Your task to perform on an android device: Is it going to rain this weekend? Image 0: 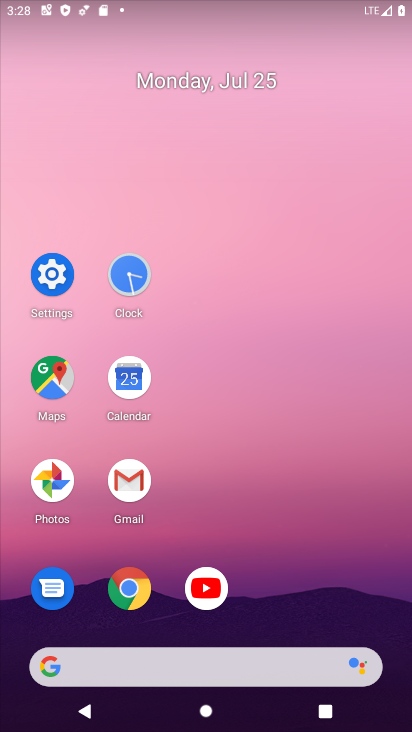
Step 0: click (150, 665)
Your task to perform on an android device: Is it going to rain this weekend? Image 1: 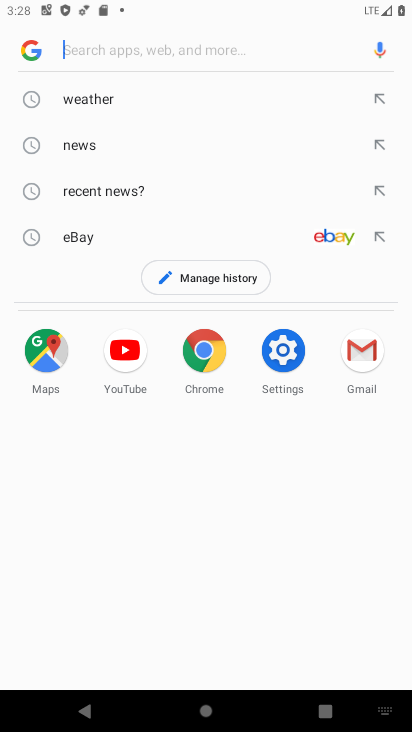
Step 1: click (82, 97)
Your task to perform on an android device: Is it going to rain this weekend? Image 2: 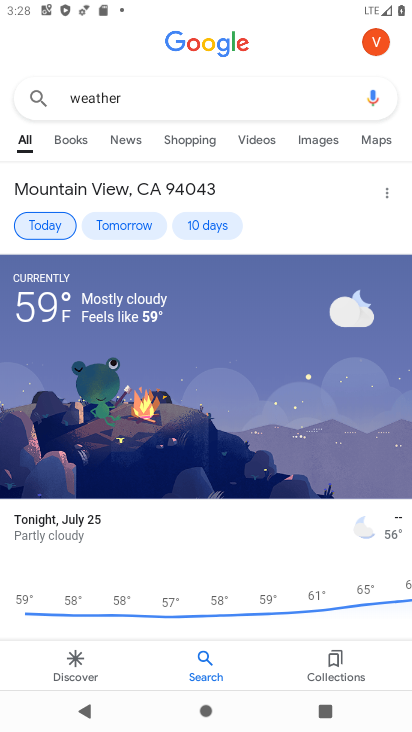
Step 2: click (197, 228)
Your task to perform on an android device: Is it going to rain this weekend? Image 3: 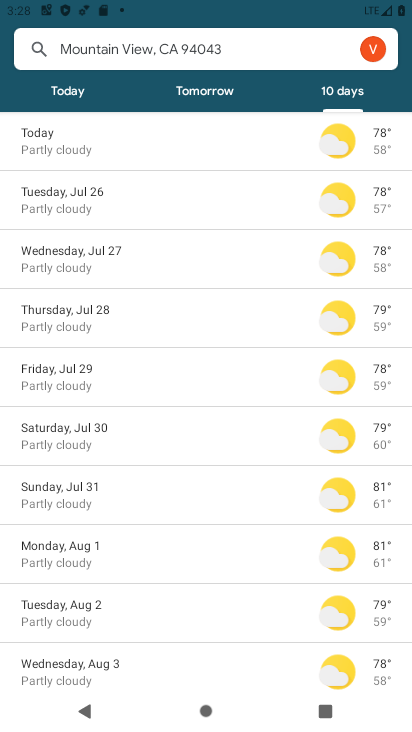
Step 3: task complete